Your task to perform on an android device: What's the latest video from GameXplain? Image 0: 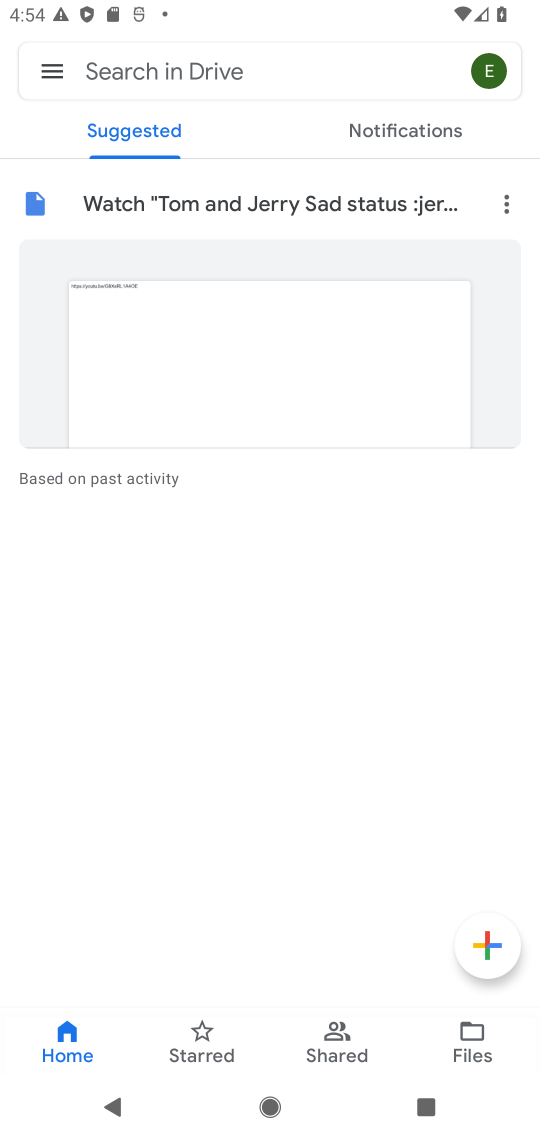
Step 0: press home button
Your task to perform on an android device: What's the latest video from GameXplain? Image 1: 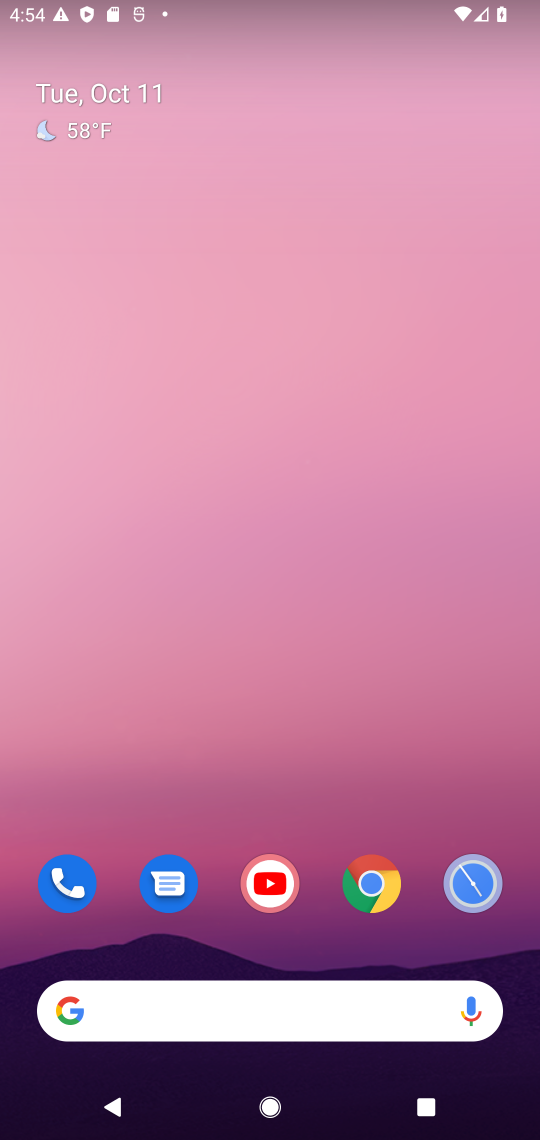
Step 1: drag from (319, 832) to (332, 91)
Your task to perform on an android device: What's the latest video from GameXplain? Image 2: 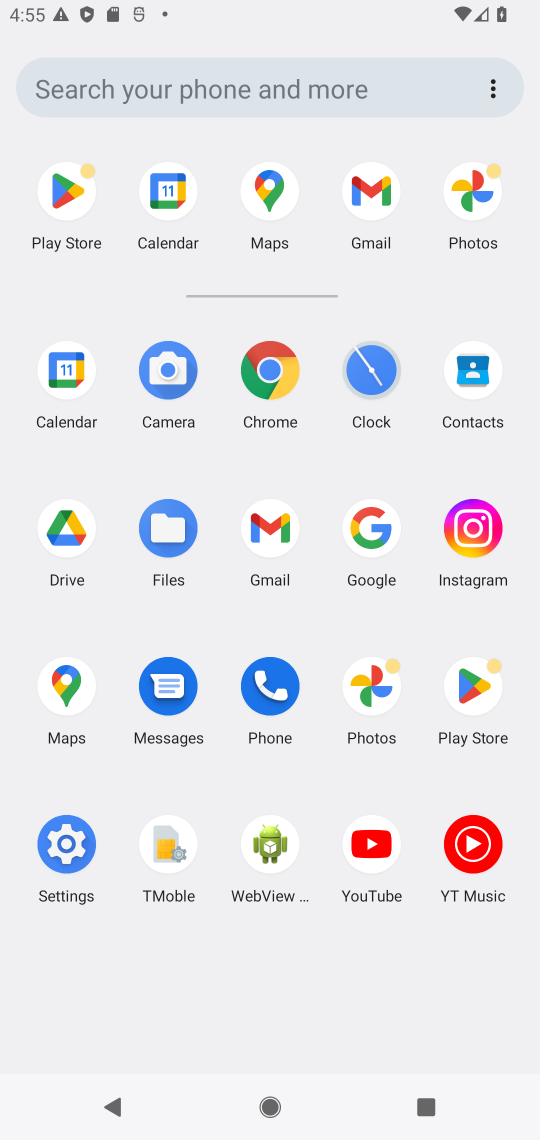
Step 2: click (376, 832)
Your task to perform on an android device: What's the latest video from GameXplain? Image 3: 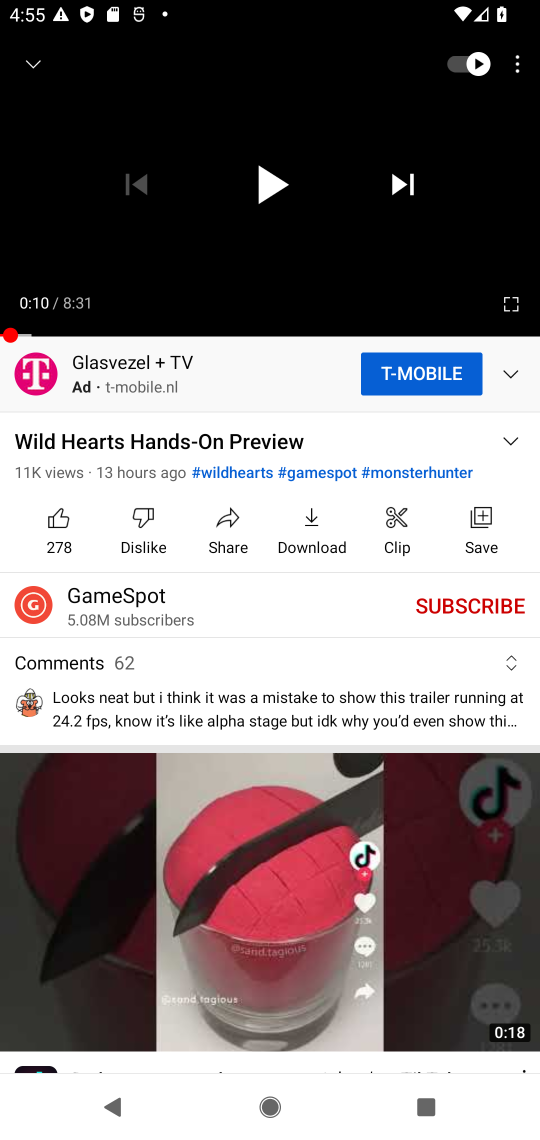
Step 3: drag from (267, 140) to (223, 976)
Your task to perform on an android device: What's the latest video from GameXplain? Image 4: 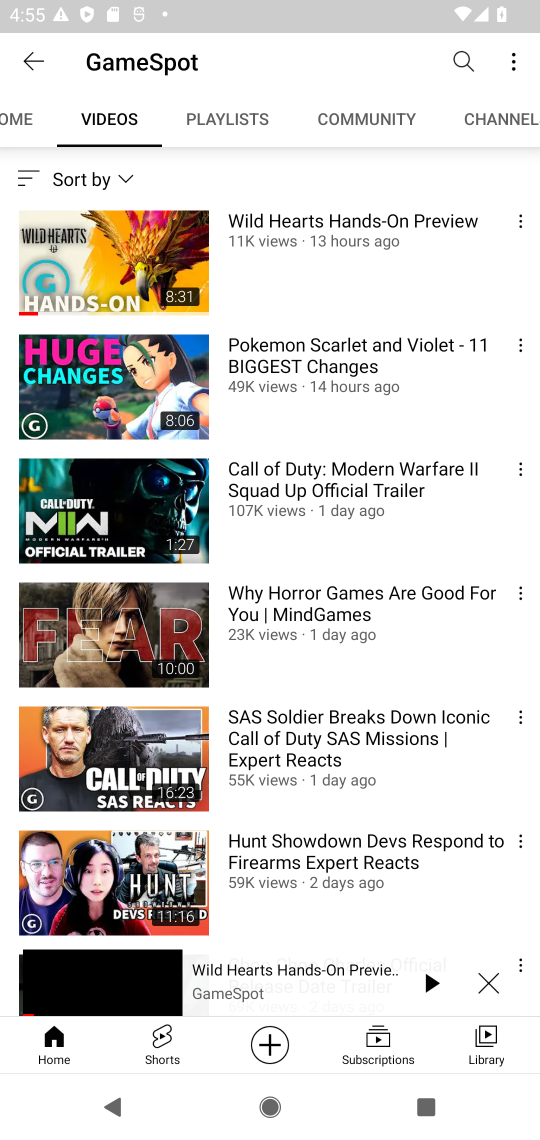
Step 4: click (387, 59)
Your task to perform on an android device: What's the latest video from GameXplain? Image 5: 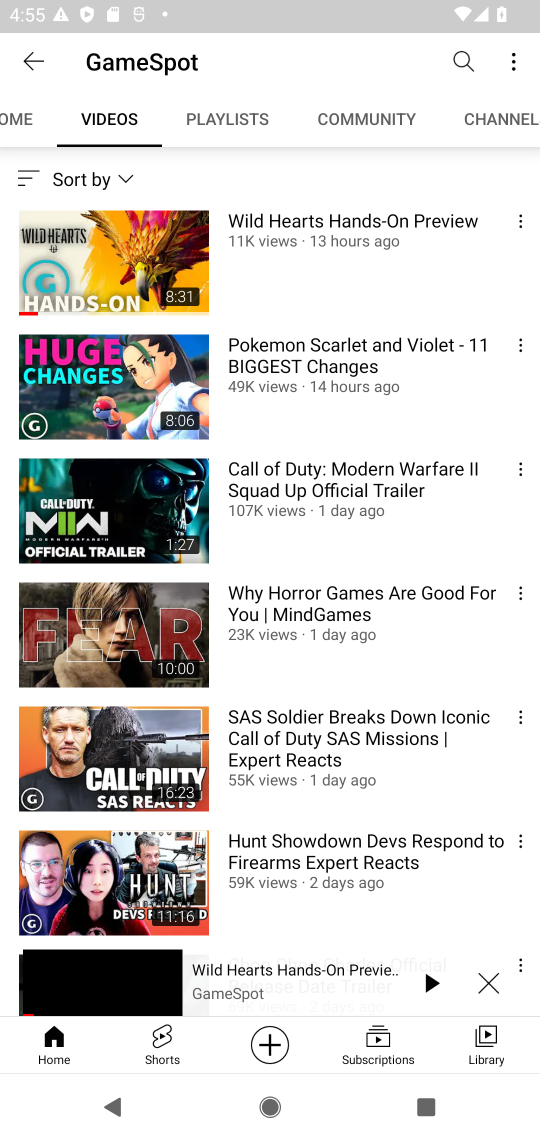
Step 5: click (441, 45)
Your task to perform on an android device: What's the latest video from GameXplain? Image 6: 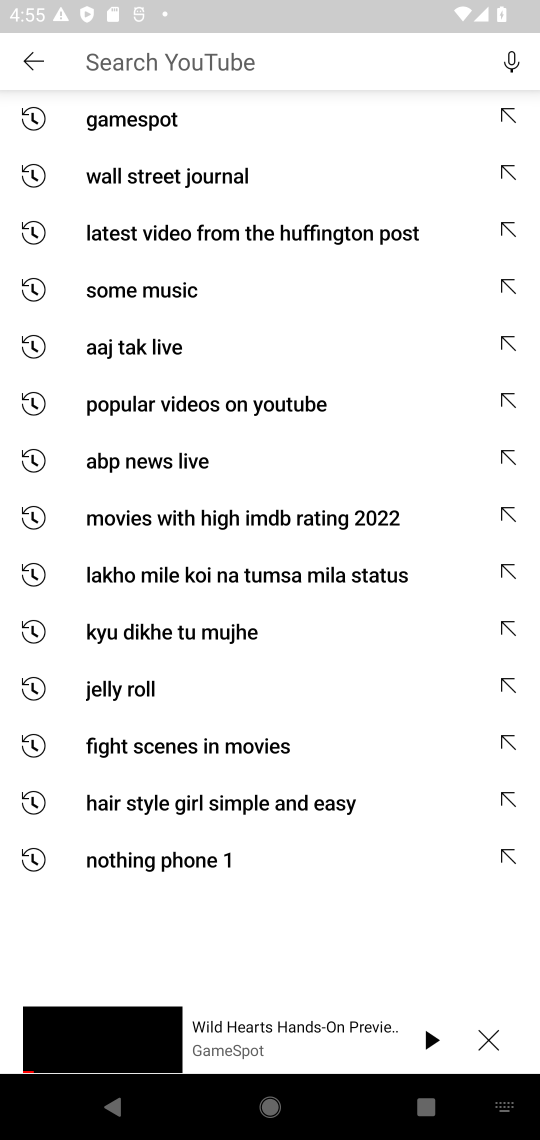
Step 6: type "GameXplain"
Your task to perform on an android device: What's the latest video from GameXplain? Image 7: 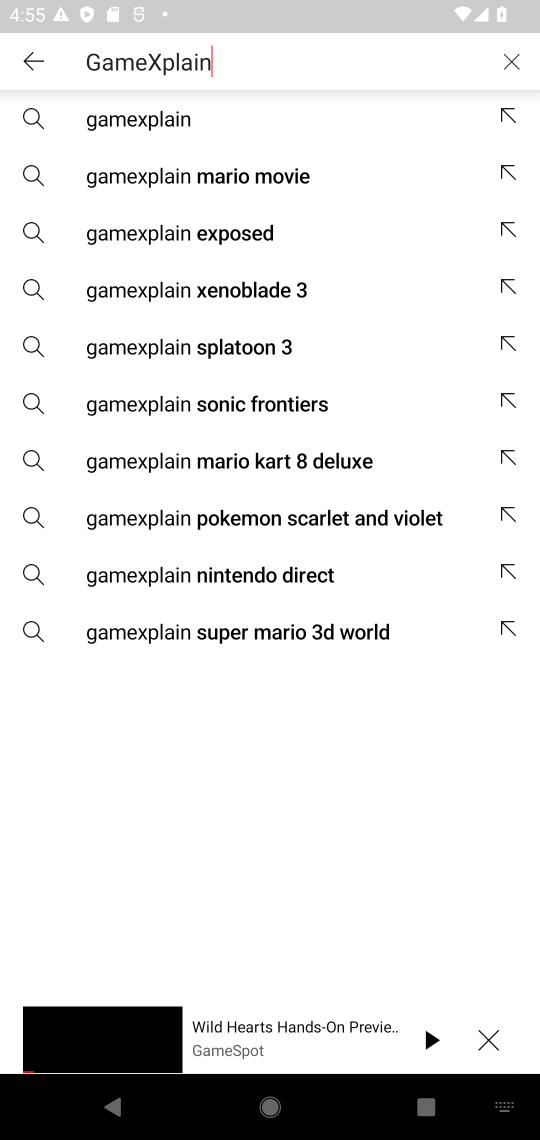
Step 7: press enter
Your task to perform on an android device: What's the latest video from GameXplain? Image 8: 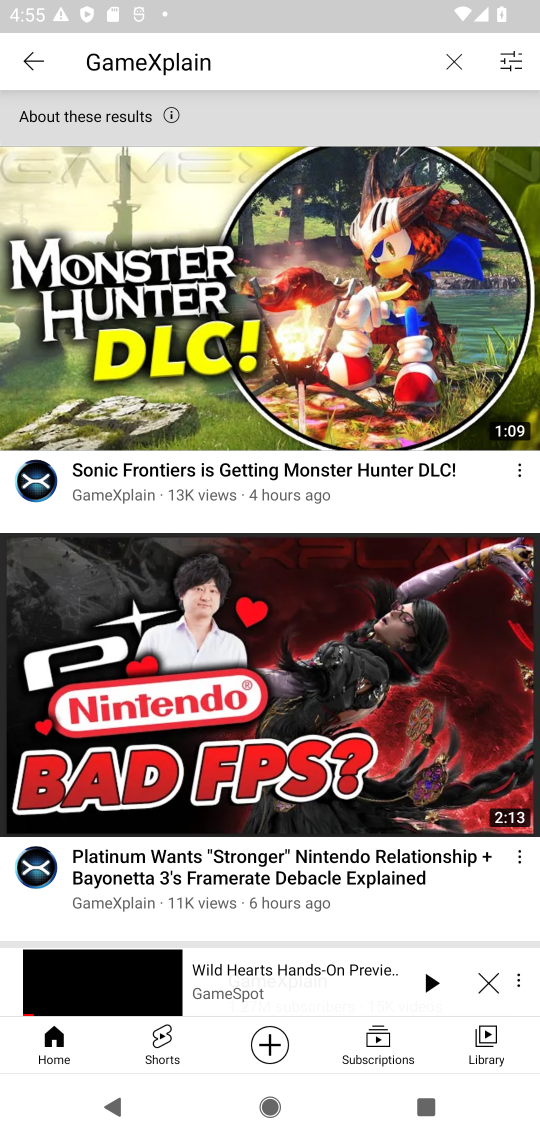
Step 8: click (115, 494)
Your task to perform on an android device: What's the latest video from GameXplain? Image 9: 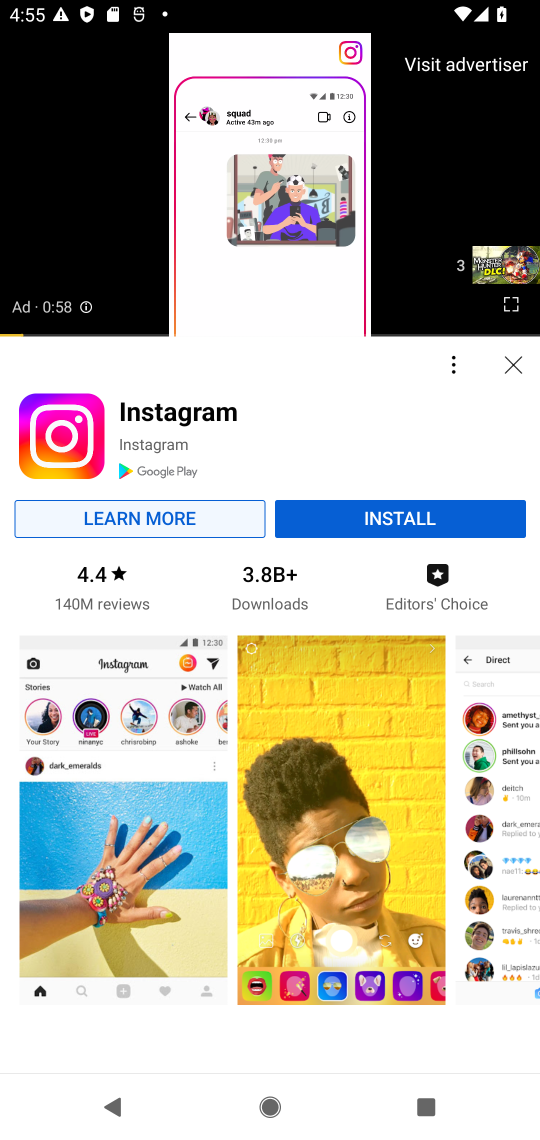
Step 9: click (507, 365)
Your task to perform on an android device: What's the latest video from GameXplain? Image 10: 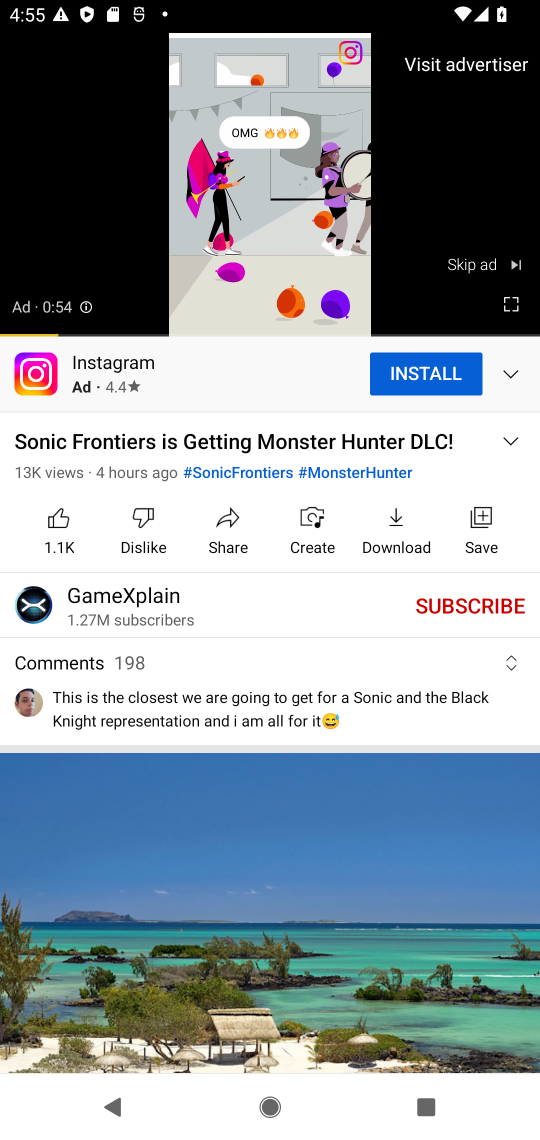
Step 10: click (90, 614)
Your task to perform on an android device: What's the latest video from GameXplain? Image 11: 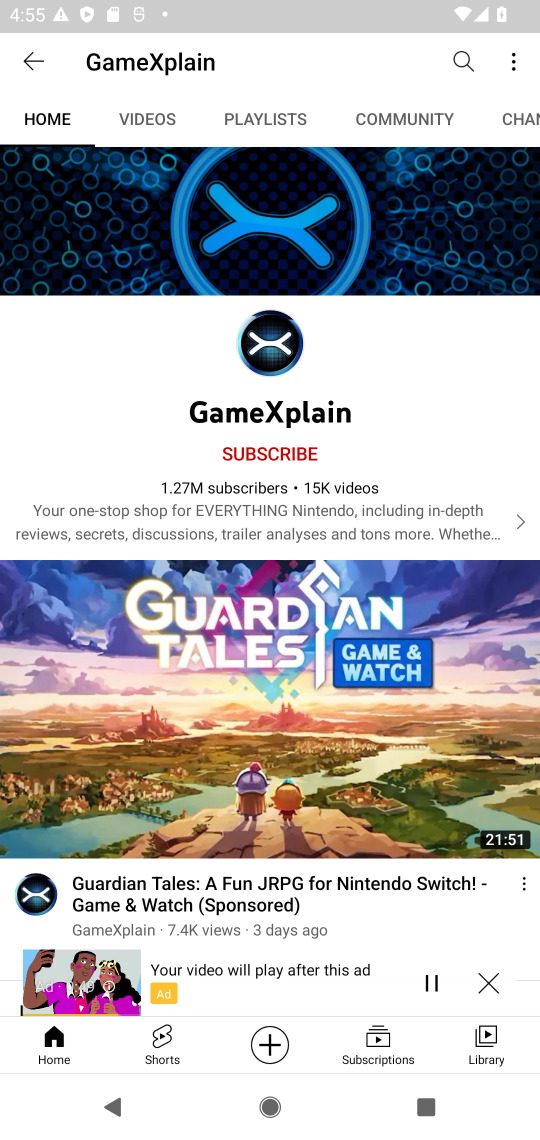
Step 11: click (171, 118)
Your task to perform on an android device: What's the latest video from GameXplain? Image 12: 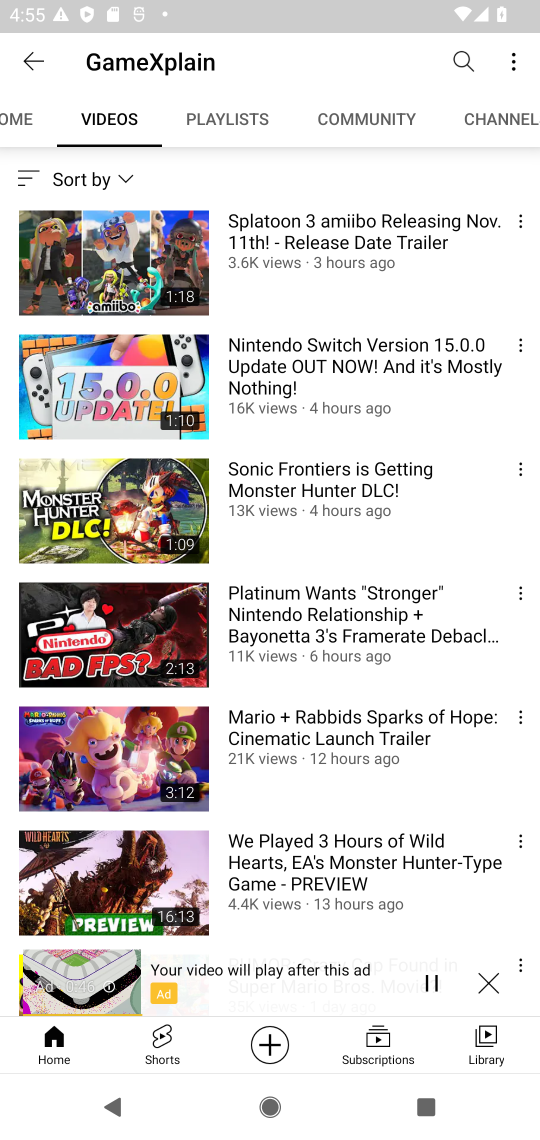
Step 12: click (161, 254)
Your task to perform on an android device: What's the latest video from GameXplain? Image 13: 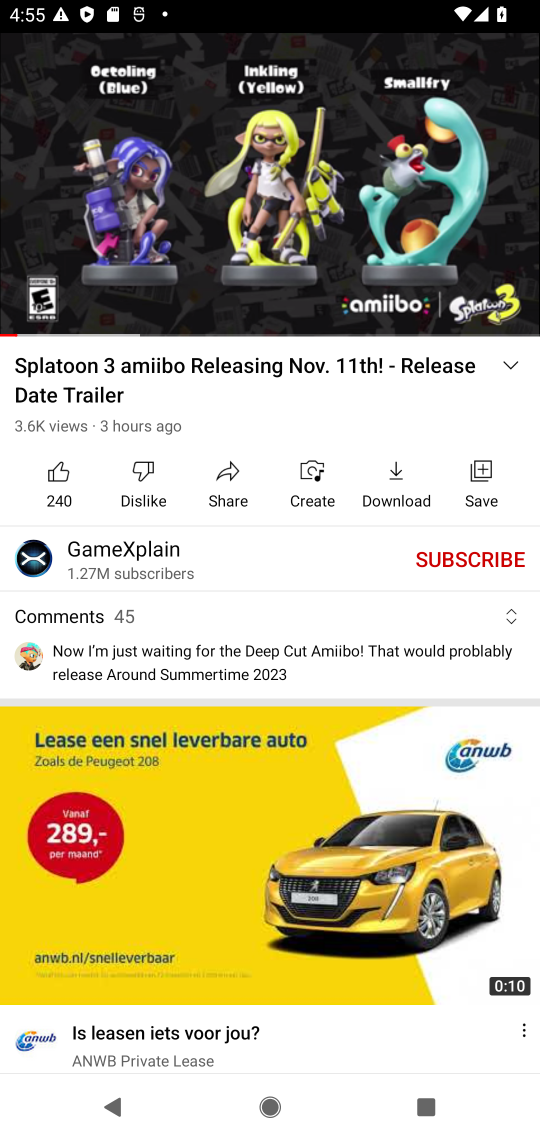
Step 13: task complete